Your task to perform on an android device: What is the news today? Image 0: 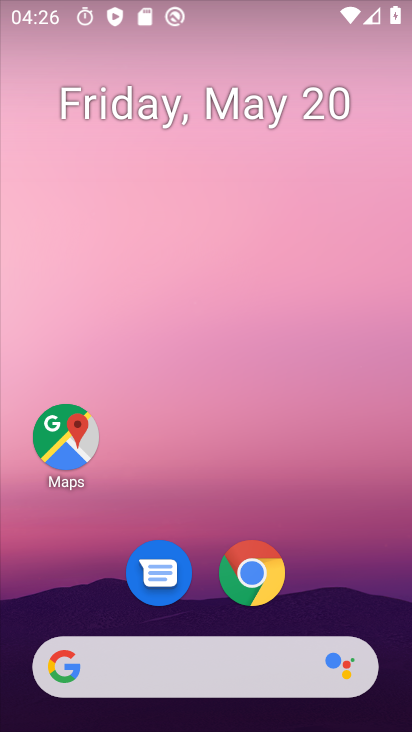
Step 0: drag from (385, 692) to (218, 261)
Your task to perform on an android device: What is the news today? Image 1: 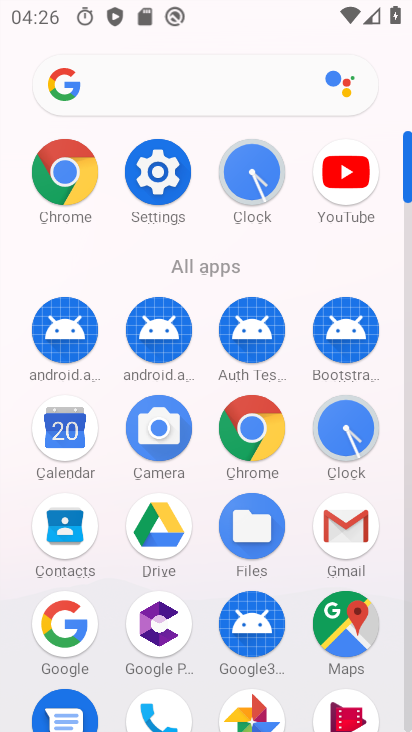
Step 1: press back button
Your task to perform on an android device: What is the news today? Image 2: 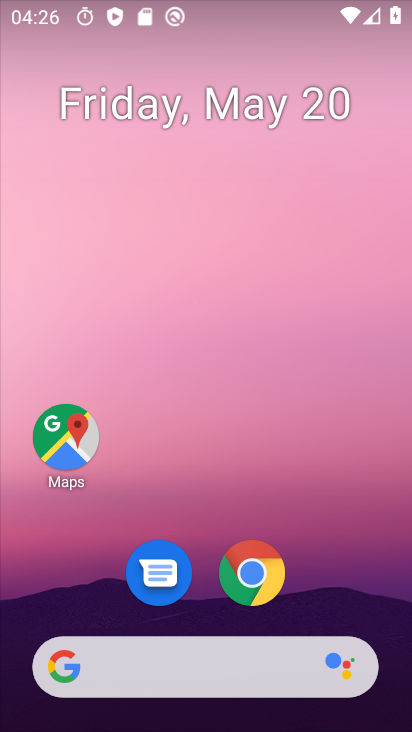
Step 2: drag from (0, 230) to (394, 451)
Your task to perform on an android device: What is the news today? Image 3: 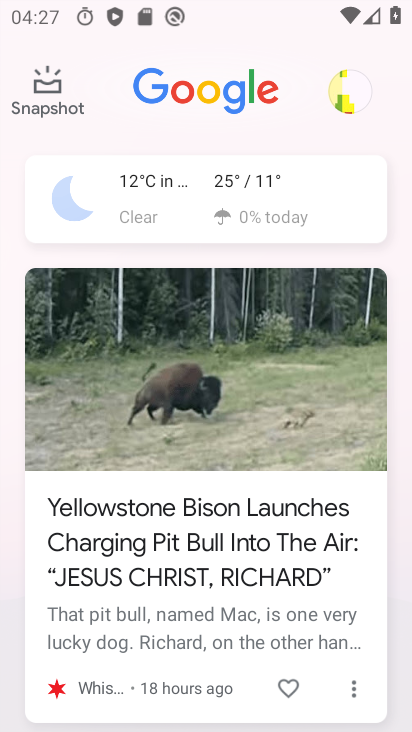
Step 3: drag from (178, 400) to (155, 241)
Your task to perform on an android device: What is the news today? Image 4: 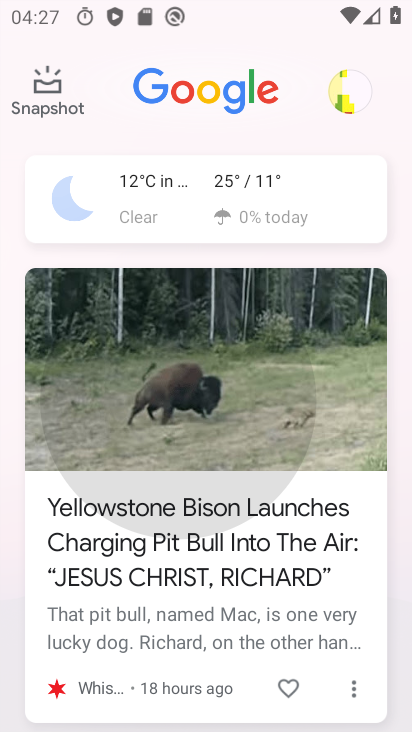
Step 4: drag from (201, 542) to (177, 219)
Your task to perform on an android device: What is the news today? Image 5: 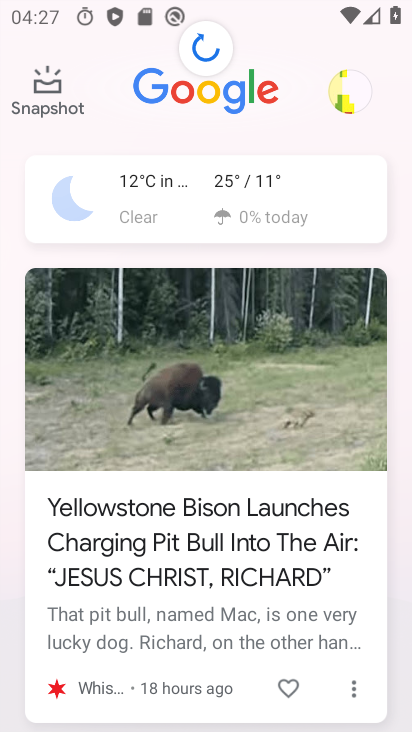
Step 5: drag from (220, 515) to (254, 264)
Your task to perform on an android device: What is the news today? Image 6: 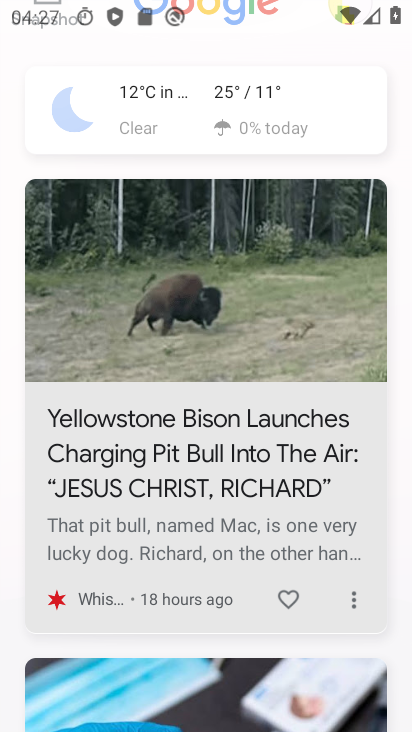
Step 6: drag from (194, 507) to (199, 221)
Your task to perform on an android device: What is the news today? Image 7: 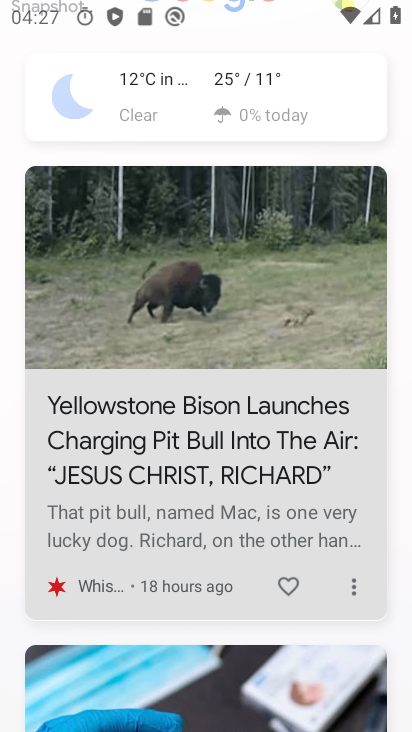
Step 7: drag from (190, 491) to (166, 173)
Your task to perform on an android device: What is the news today? Image 8: 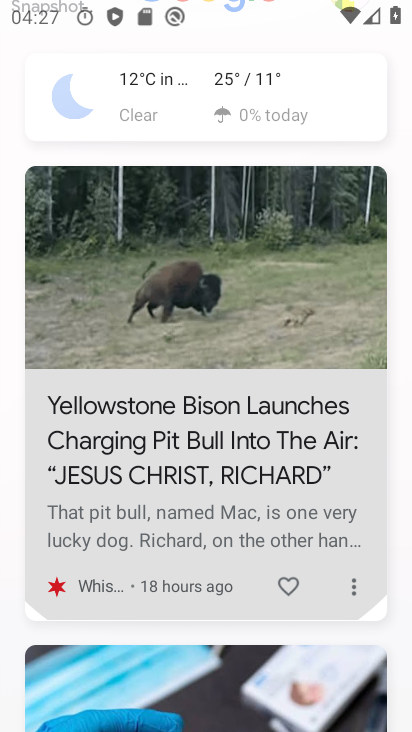
Step 8: drag from (130, 481) to (110, 188)
Your task to perform on an android device: What is the news today? Image 9: 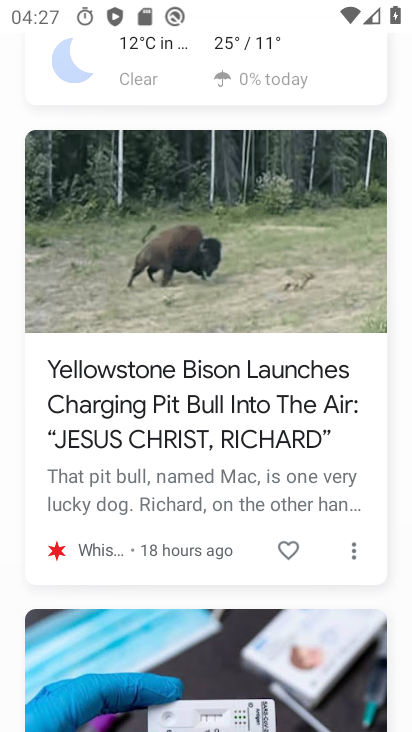
Step 9: click (88, 224)
Your task to perform on an android device: What is the news today? Image 10: 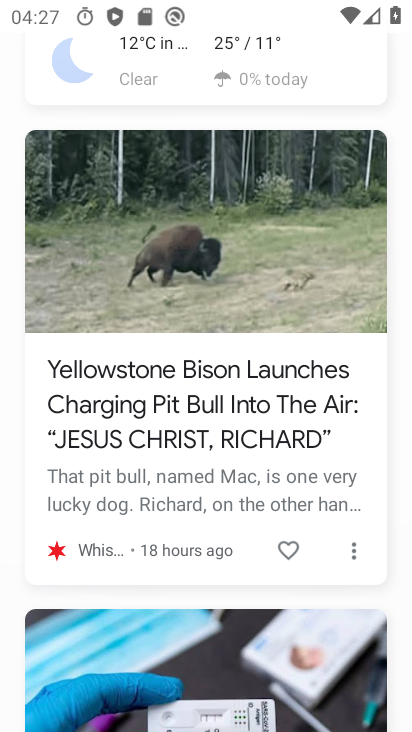
Step 10: drag from (117, 215) to (117, 61)
Your task to perform on an android device: What is the news today? Image 11: 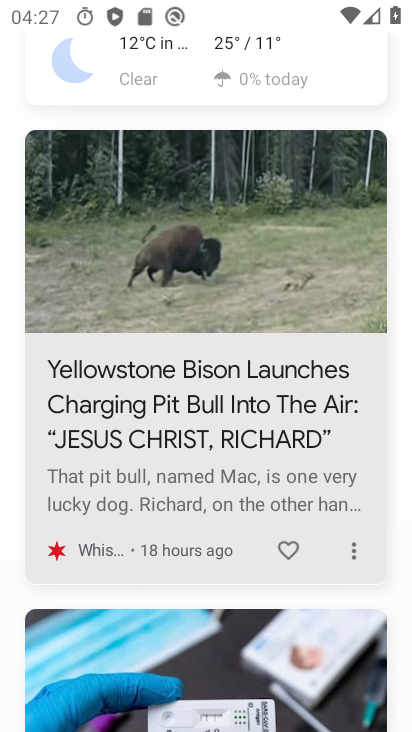
Step 11: drag from (205, 425) to (178, 210)
Your task to perform on an android device: What is the news today? Image 12: 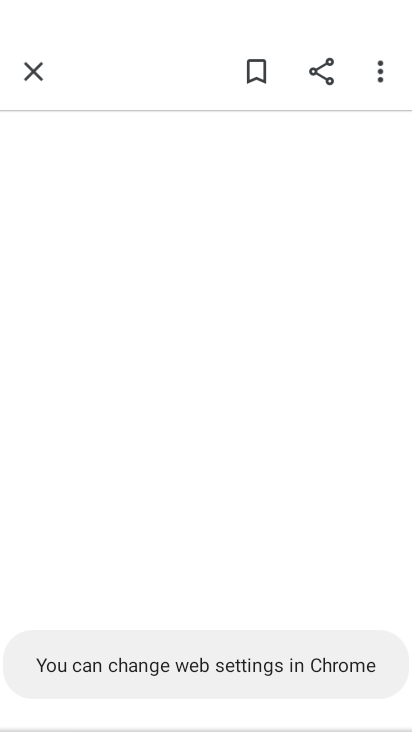
Step 12: drag from (227, 596) to (227, 248)
Your task to perform on an android device: What is the news today? Image 13: 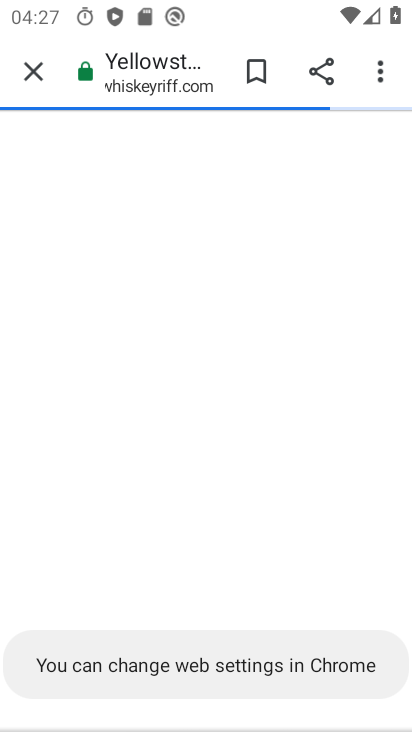
Step 13: click (19, 63)
Your task to perform on an android device: What is the news today? Image 14: 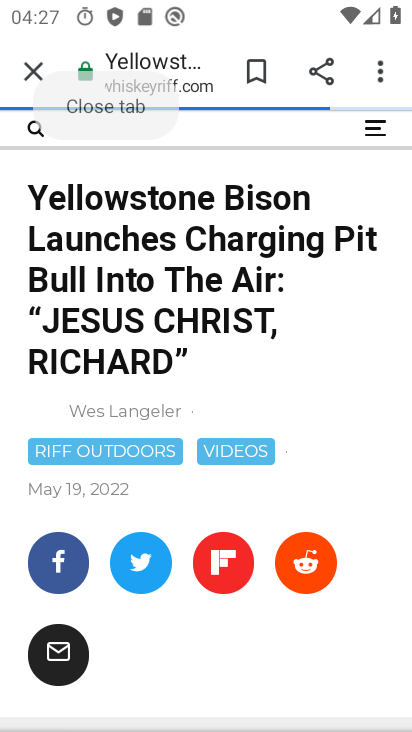
Step 14: click (26, 61)
Your task to perform on an android device: What is the news today? Image 15: 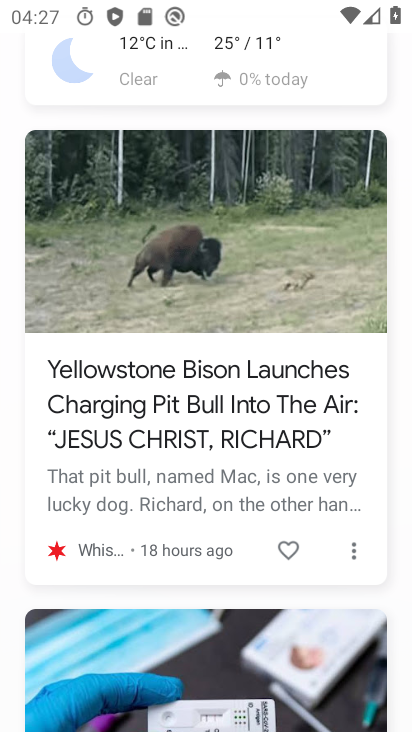
Step 15: click (238, 182)
Your task to perform on an android device: What is the news today? Image 16: 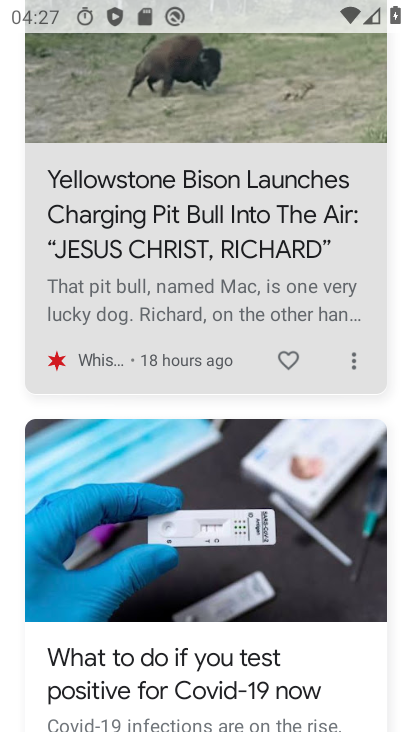
Step 16: click (126, 166)
Your task to perform on an android device: What is the news today? Image 17: 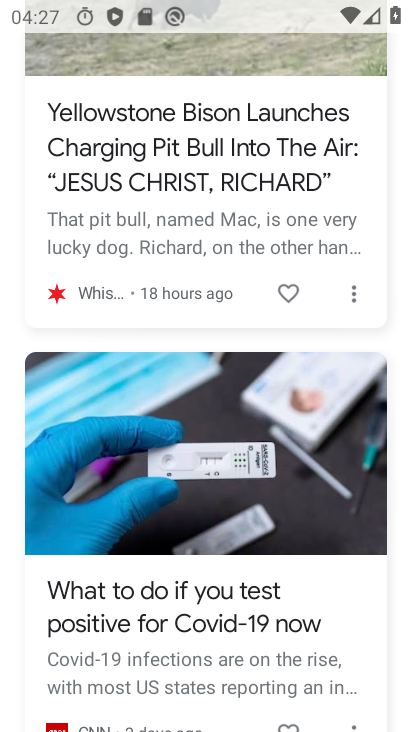
Step 17: drag from (156, 572) to (129, 399)
Your task to perform on an android device: What is the news today? Image 18: 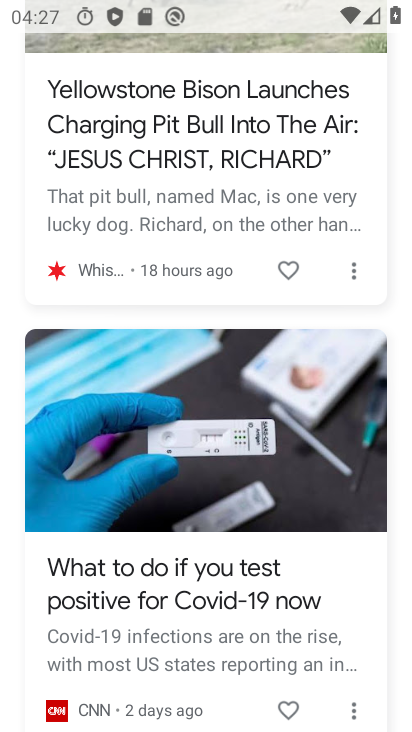
Step 18: drag from (200, 569) to (167, 309)
Your task to perform on an android device: What is the news today? Image 19: 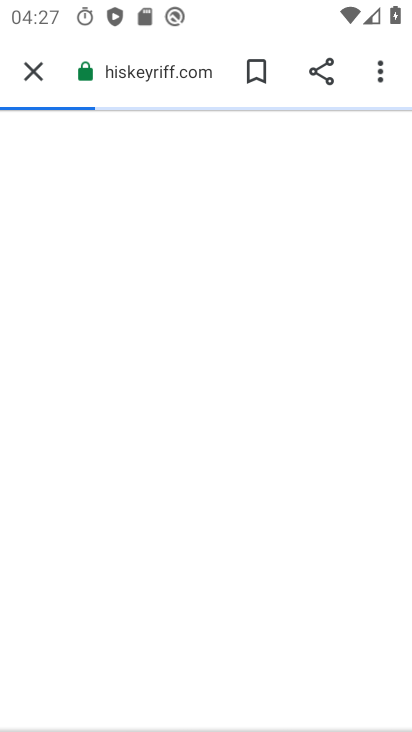
Step 19: drag from (176, 603) to (154, 229)
Your task to perform on an android device: What is the news today? Image 20: 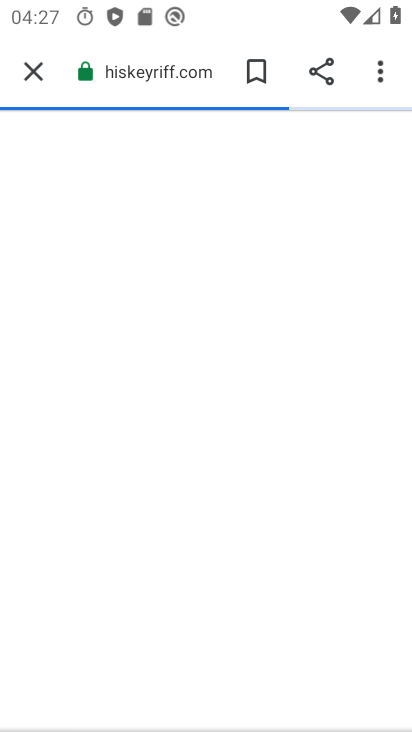
Step 20: click (28, 60)
Your task to perform on an android device: What is the news today? Image 21: 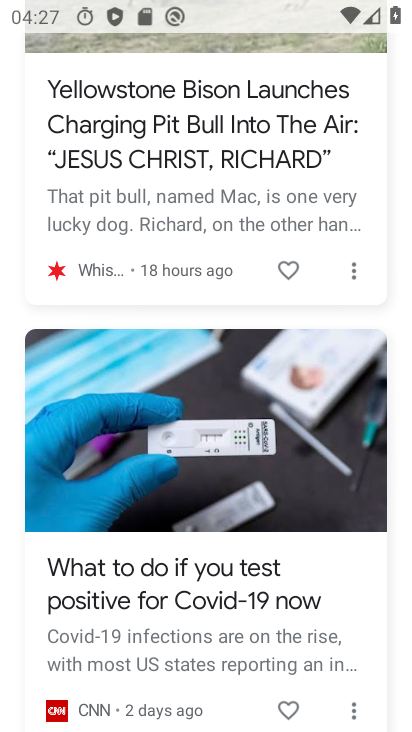
Step 21: task complete